Your task to perform on an android device: delete location history Image 0: 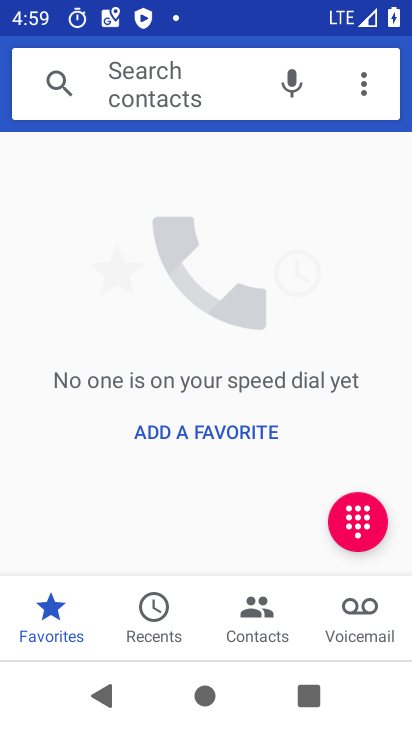
Step 0: press back button
Your task to perform on an android device: delete location history Image 1: 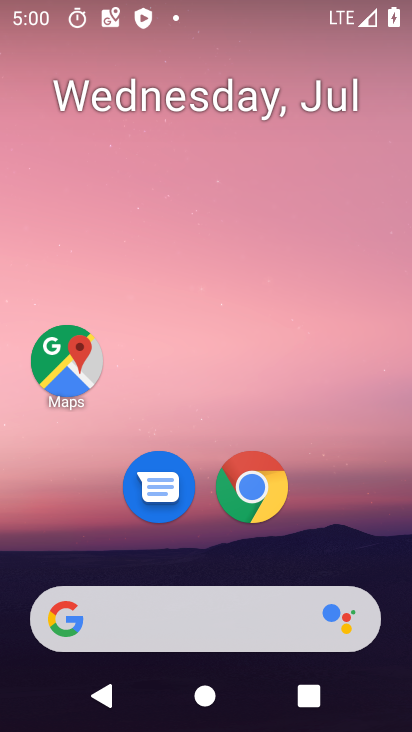
Step 1: click (46, 365)
Your task to perform on an android device: delete location history Image 2: 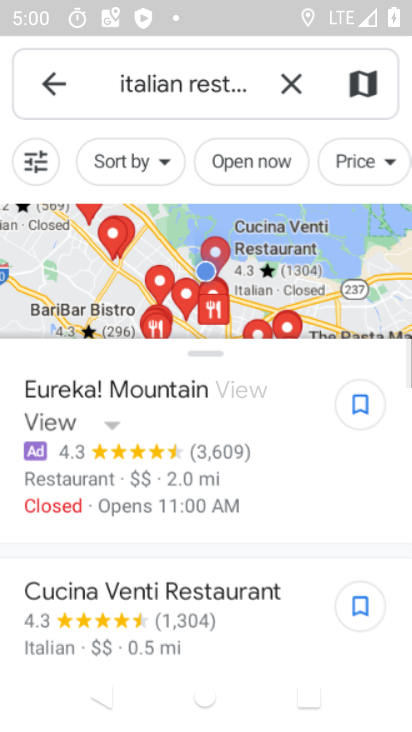
Step 2: click (45, 80)
Your task to perform on an android device: delete location history Image 3: 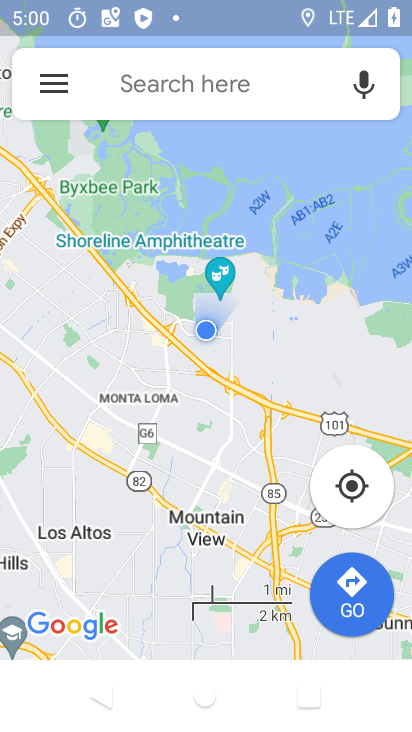
Step 3: click (63, 76)
Your task to perform on an android device: delete location history Image 4: 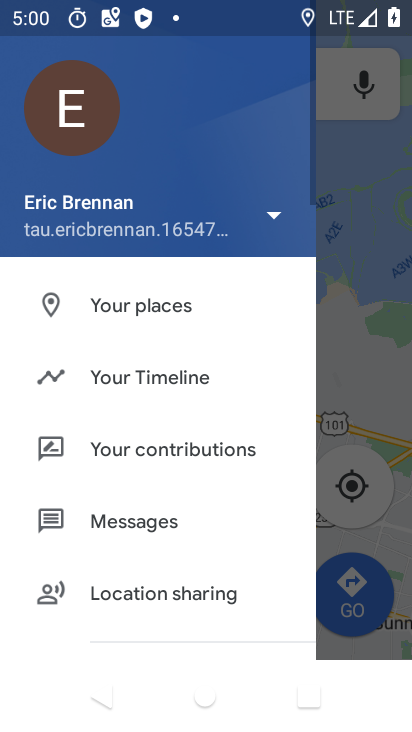
Step 4: click (127, 374)
Your task to perform on an android device: delete location history Image 5: 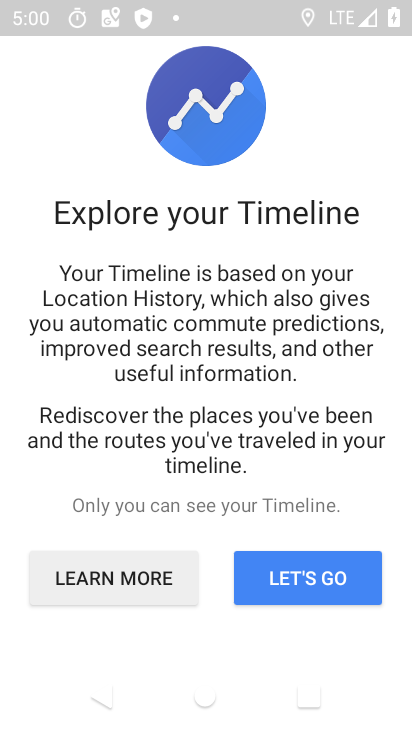
Step 5: click (304, 588)
Your task to perform on an android device: delete location history Image 6: 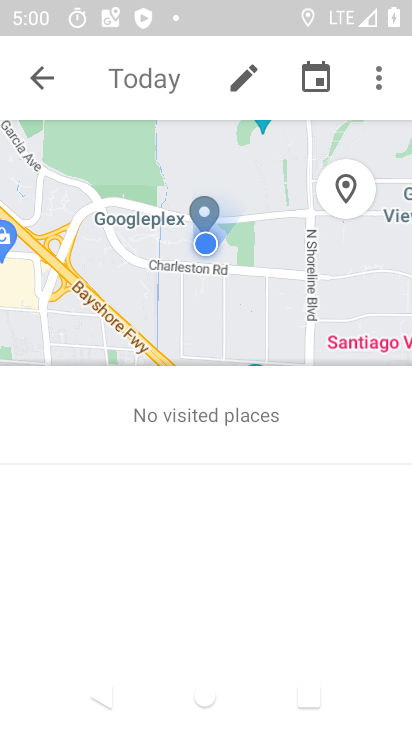
Step 6: click (384, 77)
Your task to perform on an android device: delete location history Image 7: 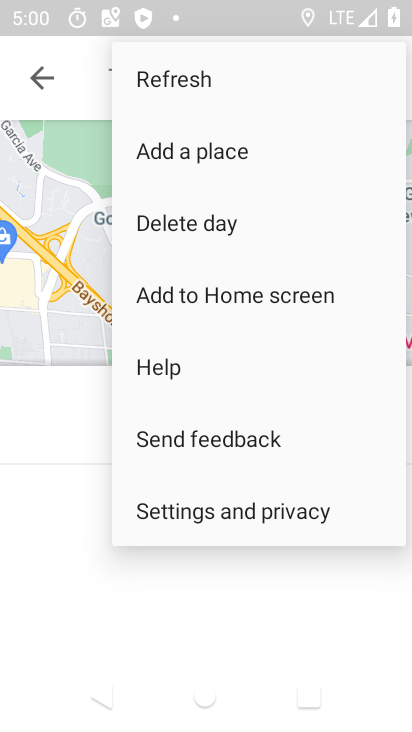
Step 7: click (188, 512)
Your task to perform on an android device: delete location history Image 8: 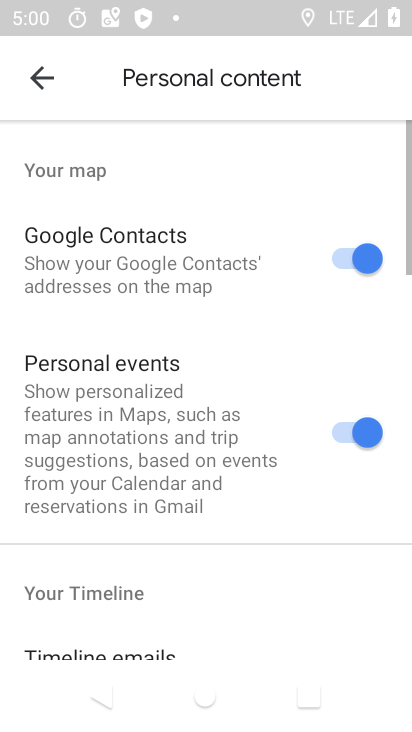
Step 8: drag from (161, 612) to (239, 67)
Your task to perform on an android device: delete location history Image 9: 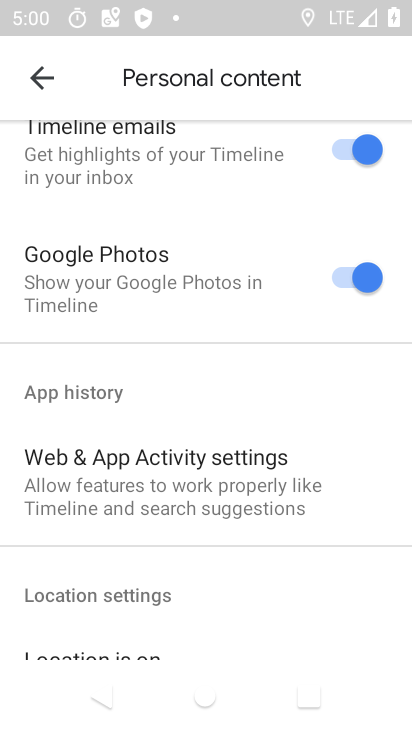
Step 9: drag from (165, 659) to (278, 110)
Your task to perform on an android device: delete location history Image 10: 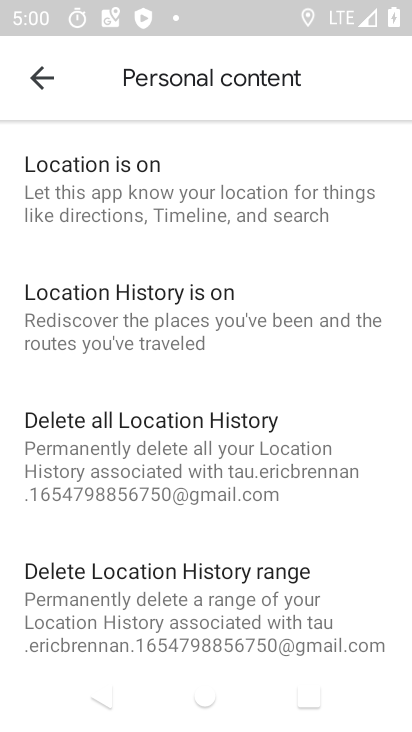
Step 10: click (192, 460)
Your task to perform on an android device: delete location history Image 11: 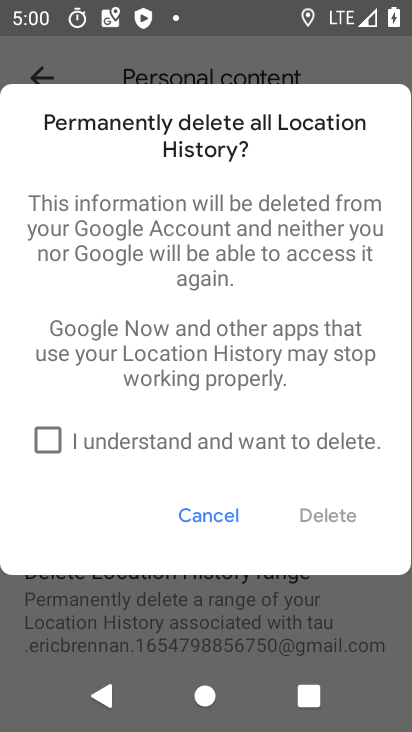
Step 11: click (41, 438)
Your task to perform on an android device: delete location history Image 12: 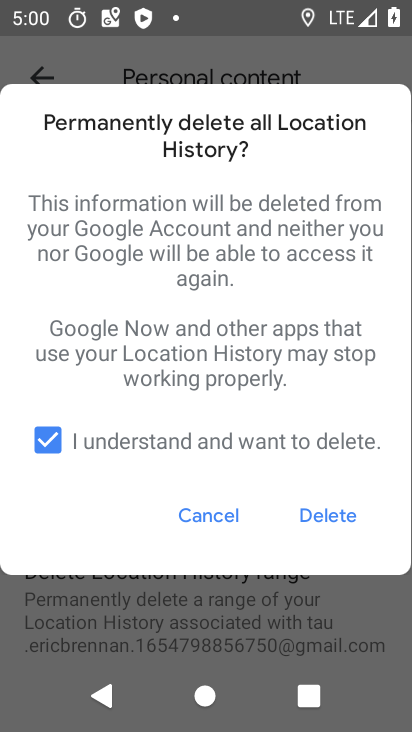
Step 12: click (342, 526)
Your task to perform on an android device: delete location history Image 13: 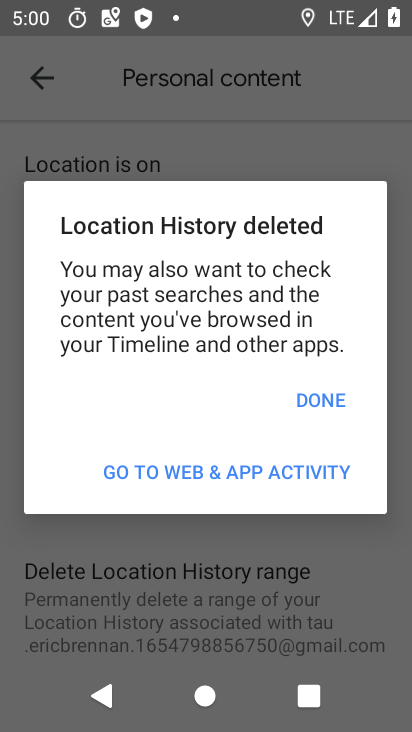
Step 13: click (311, 388)
Your task to perform on an android device: delete location history Image 14: 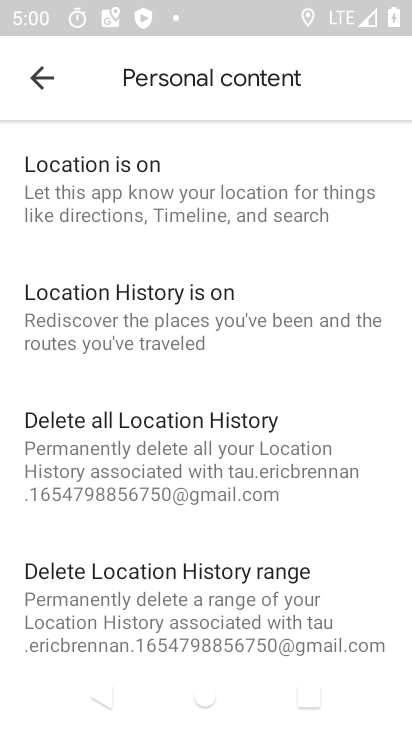
Step 14: task complete